Your task to perform on an android device: Go to calendar. Show me events next week Image 0: 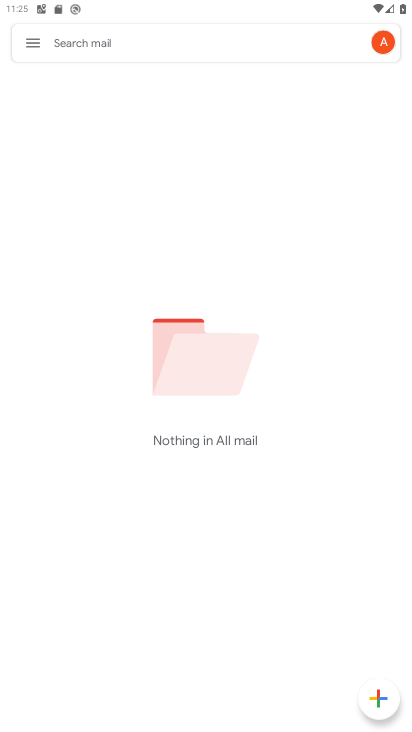
Step 0: press home button
Your task to perform on an android device: Go to calendar. Show me events next week Image 1: 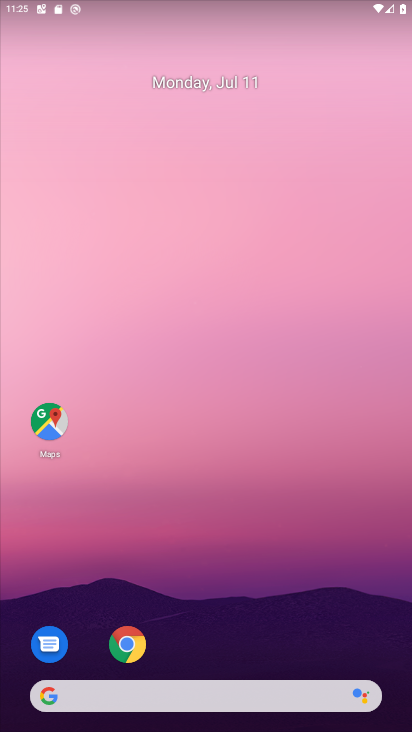
Step 1: drag from (255, 619) to (265, 67)
Your task to perform on an android device: Go to calendar. Show me events next week Image 2: 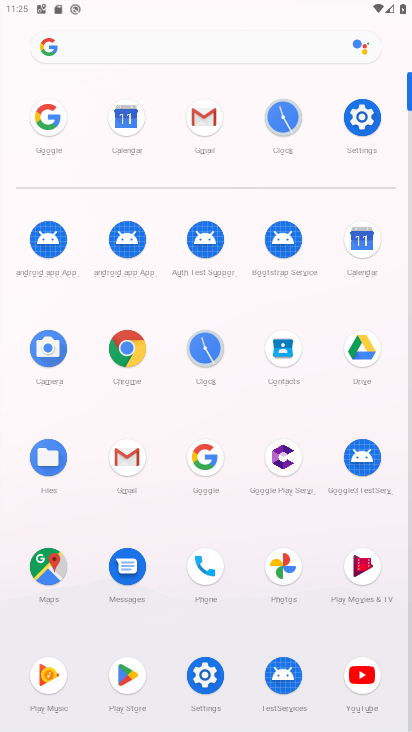
Step 2: click (379, 257)
Your task to perform on an android device: Go to calendar. Show me events next week Image 3: 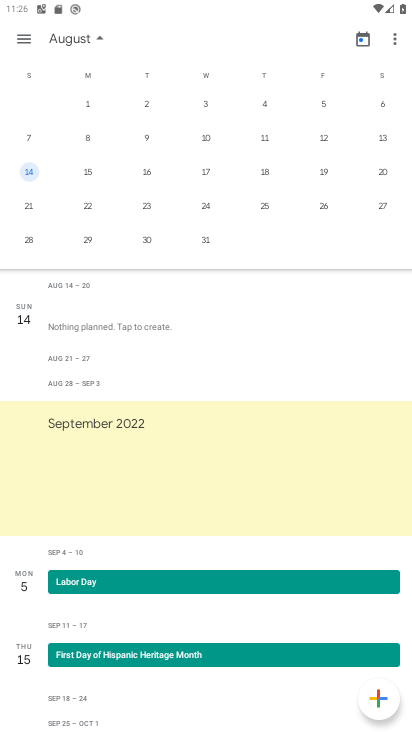
Step 3: drag from (43, 139) to (386, 75)
Your task to perform on an android device: Go to calendar. Show me events next week Image 4: 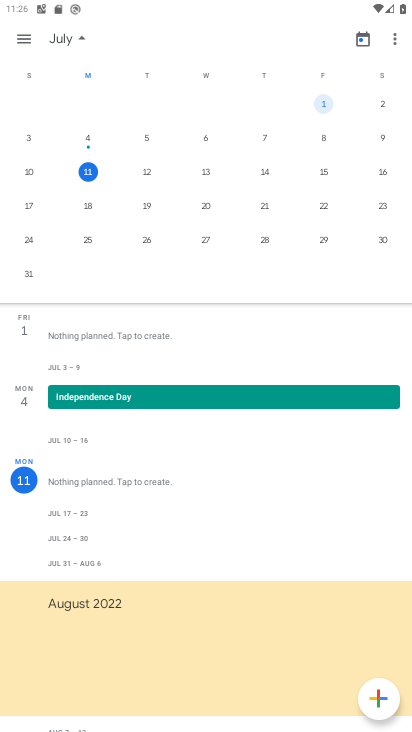
Step 4: click (38, 208)
Your task to perform on an android device: Go to calendar. Show me events next week Image 5: 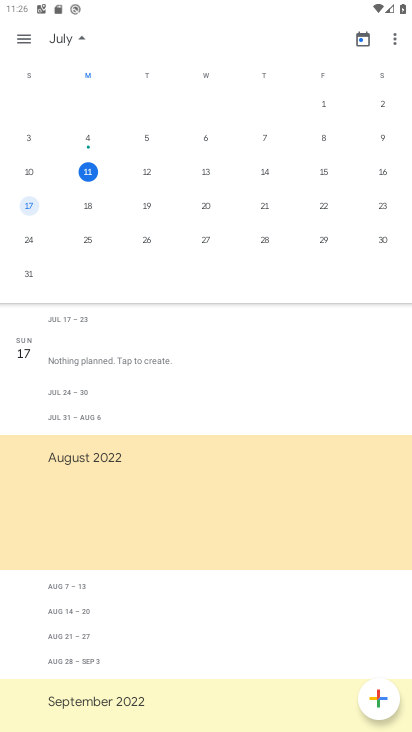
Step 5: click (99, 207)
Your task to perform on an android device: Go to calendar. Show me events next week Image 6: 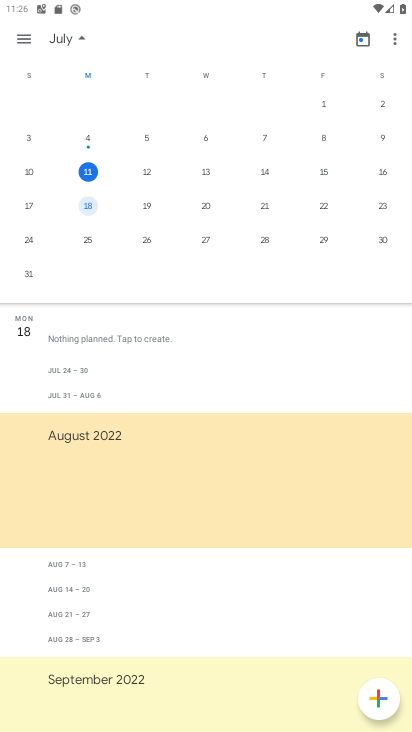
Step 6: click (157, 207)
Your task to perform on an android device: Go to calendar. Show me events next week Image 7: 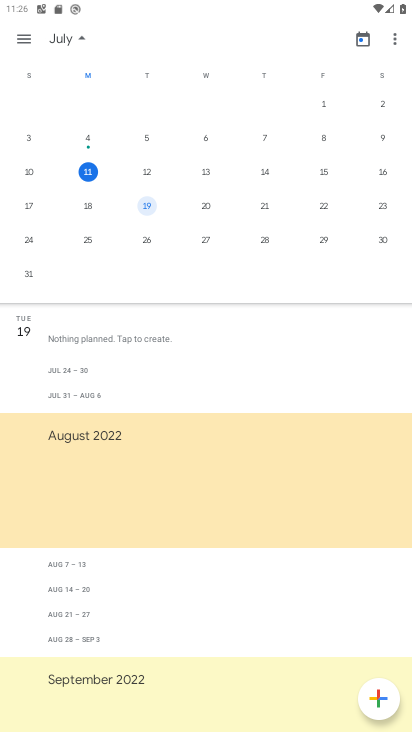
Step 7: click (210, 211)
Your task to perform on an android device: Go to calendar. Show me events next week Image 8: 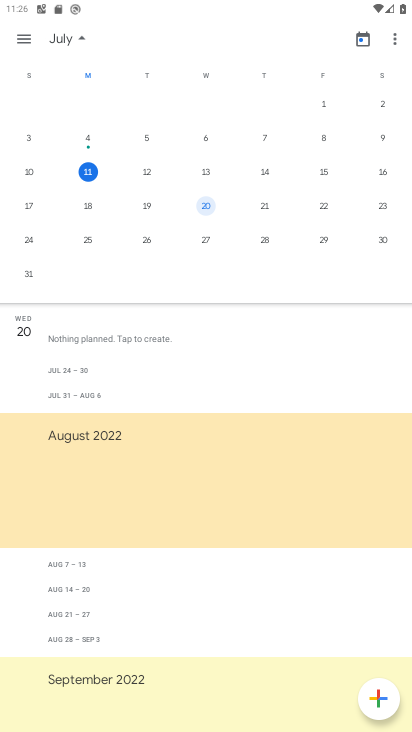
Step 8: click (263, 209)
Your task to perform on an android device: Go to calendar. Show me events next week Image 9: 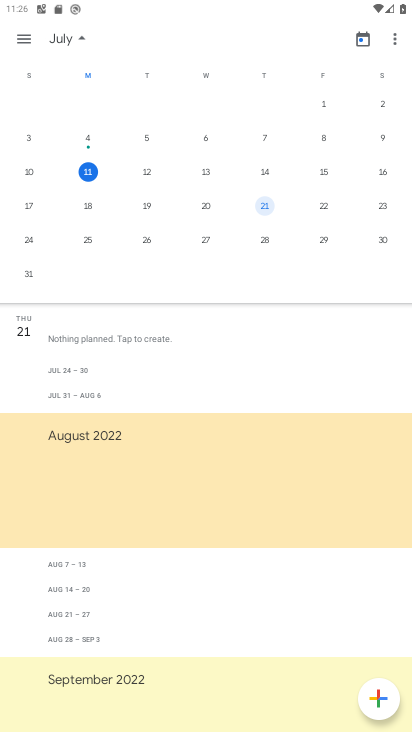
Step 9: click (323, 202)
Your task to perform on an android device: Go to calendar. Show me events next week Image 10: 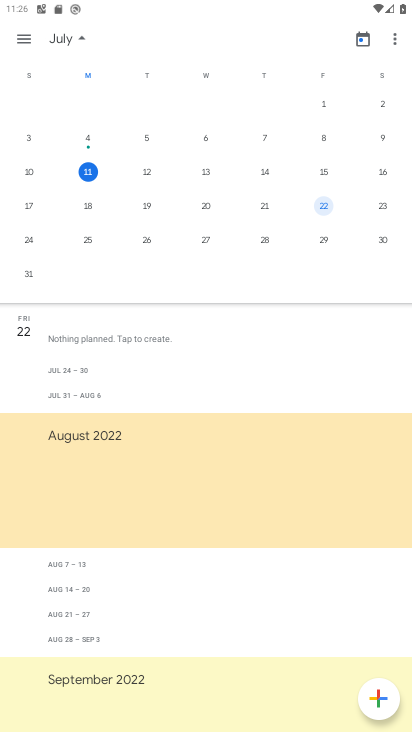
Step 10: click (385, 208)
Your task to perform on an android device: Go to calendar. Show me events next week Image 11: 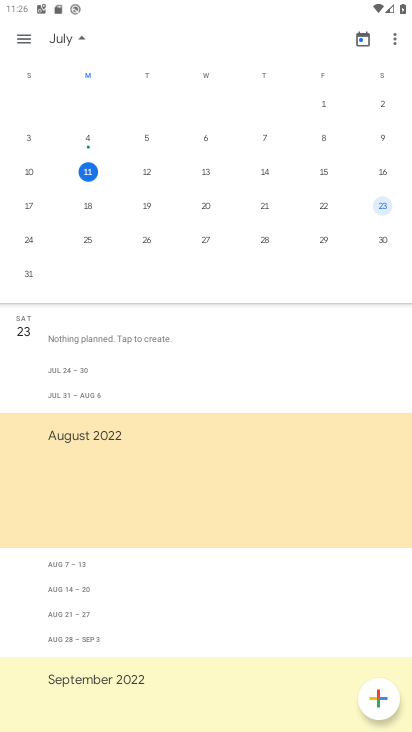
Step 11: task complete